Your task to perform on an android device: Go to privacy settings Image 0: 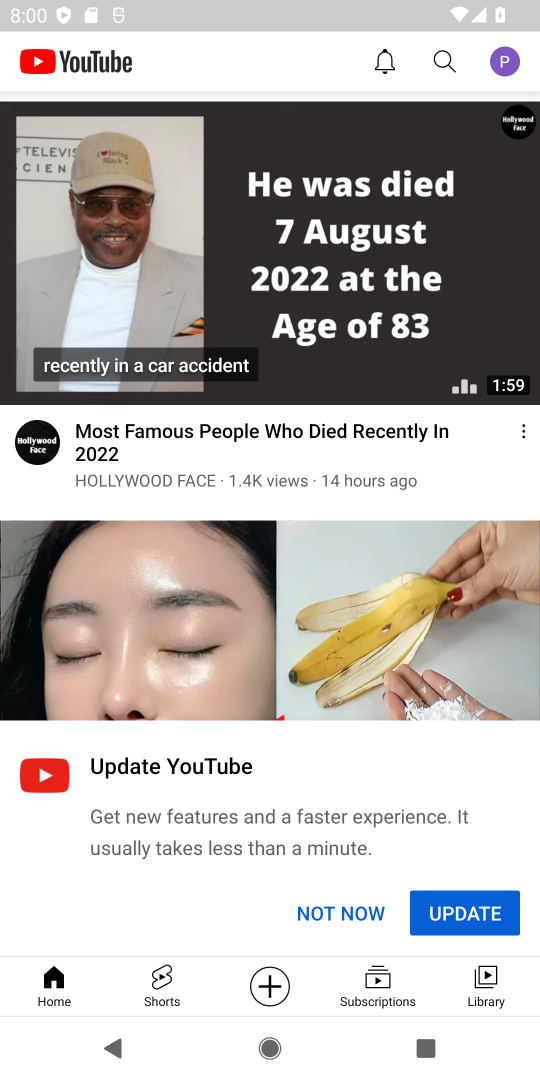
Step 0: press home button
Your task to perform on an android device: Go to privacy settings Image 1: 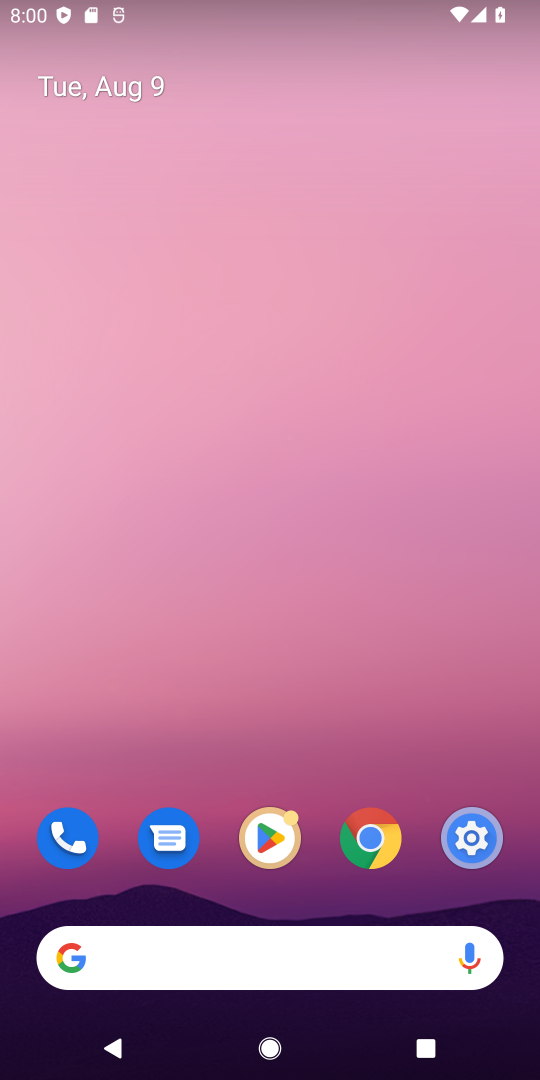
Step 1: click (486, 836)
Your task to perform on an android device: Go to privacy settings Image 2: 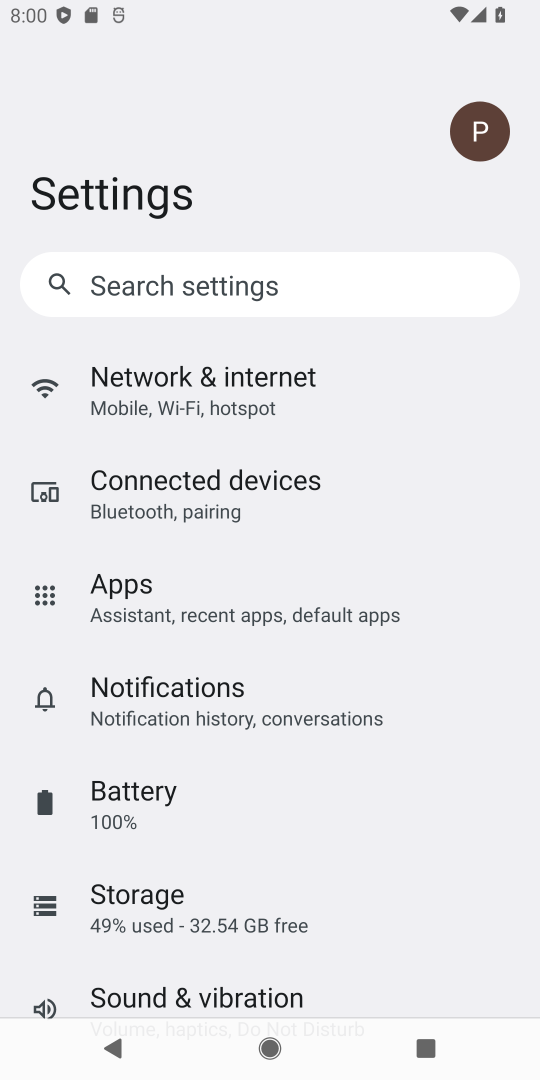
Step 2: drag from (251, 950) to (308, 256)
Your task to perform on an android device: Go to privacy settings Image 3: 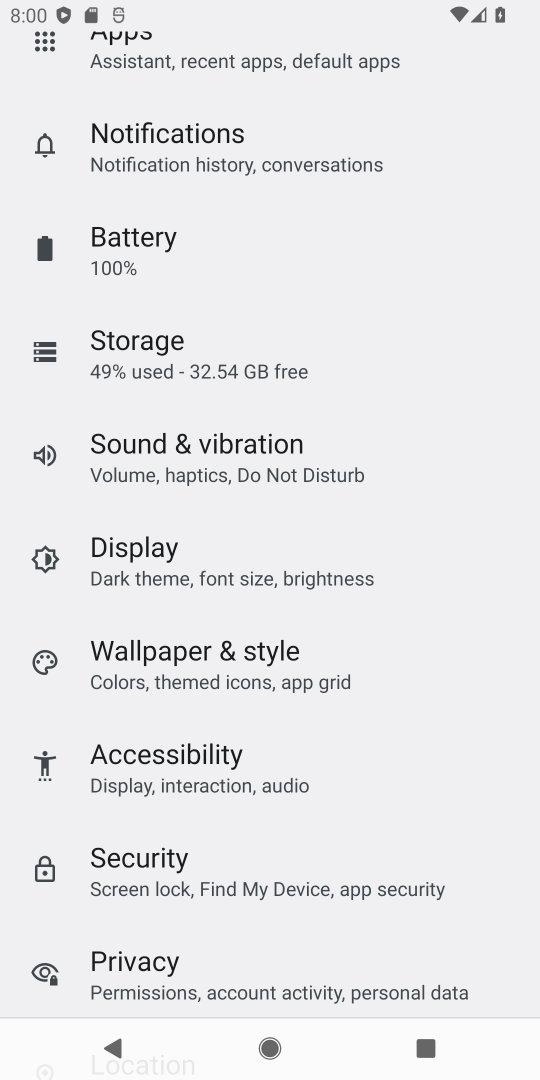
Step 3: click (207, 982)
Your task to perform on an android device: Go to privacy settings Image 4: 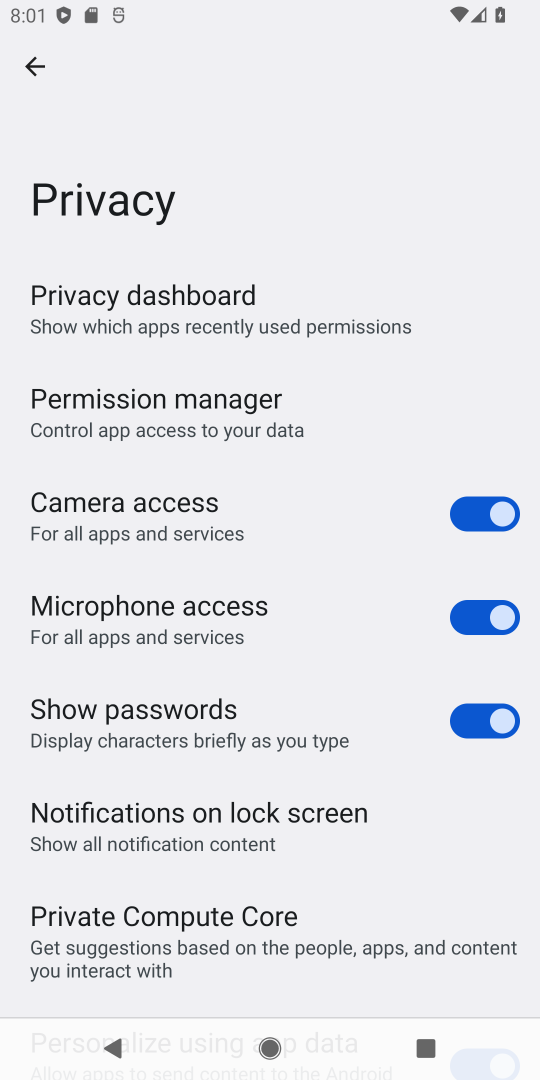
Step 4: task complete